Your task to perform on an android device: Turn off the flashlight Image 0: 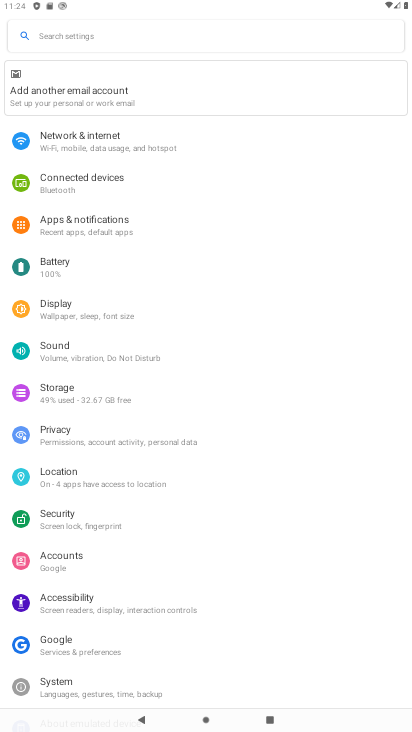
Step 0: drag from (206, 3) to (293, 405)
Your task to perform on an android device: Turn off the flashlight Image 1: 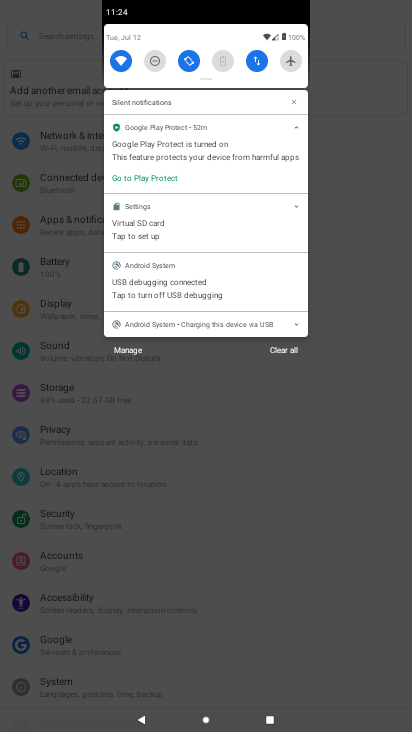
Step 1: task complete